Your task to perform on an android device: Search for Italian restaurants on Maps Image 0: 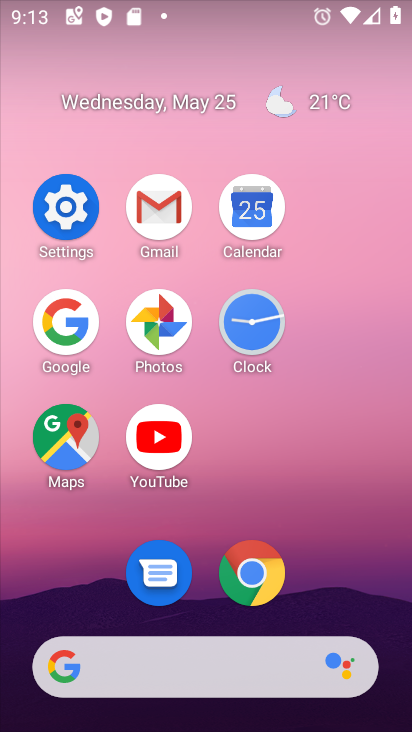
Step 0: click (87, 430)
Your task to perform on an android device: Search for Italian restaurants on Maps Image 1: 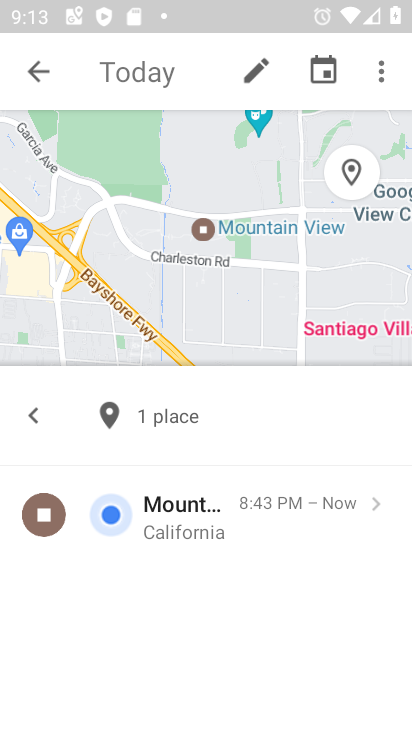
Step 1: click (47, 66)
Your task to perform on an android device: Search for Italian restaurants on Maps Image 2: 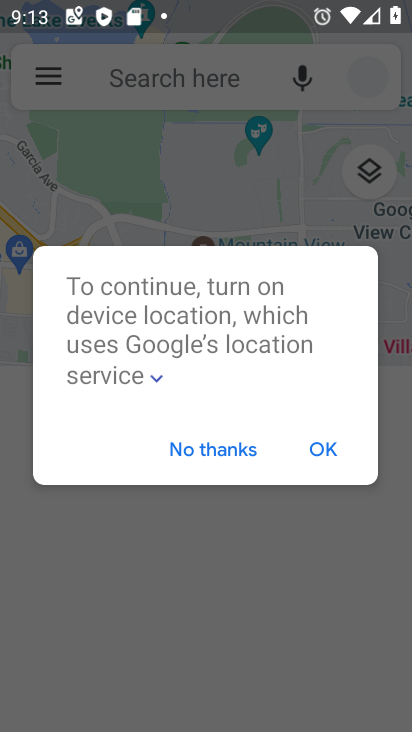
Step 2: click (298, 432)
Your task to perform on an android device: Search for Italian restaurants on Maps Image 3: 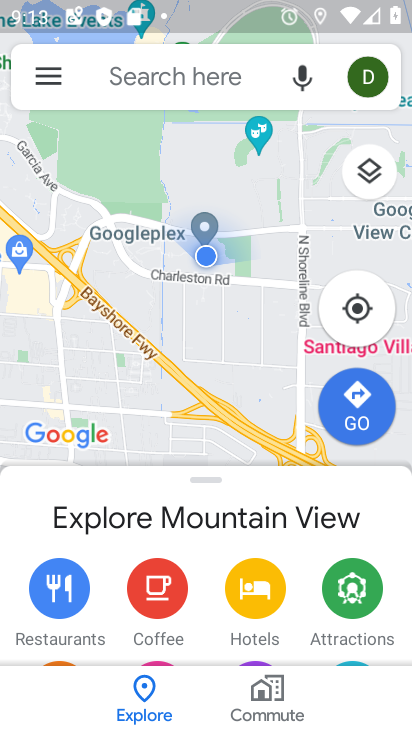
Step 3: click (141, 91)
Your task to perform on an android device: Search for Italian restaurants on Maps Image 4: 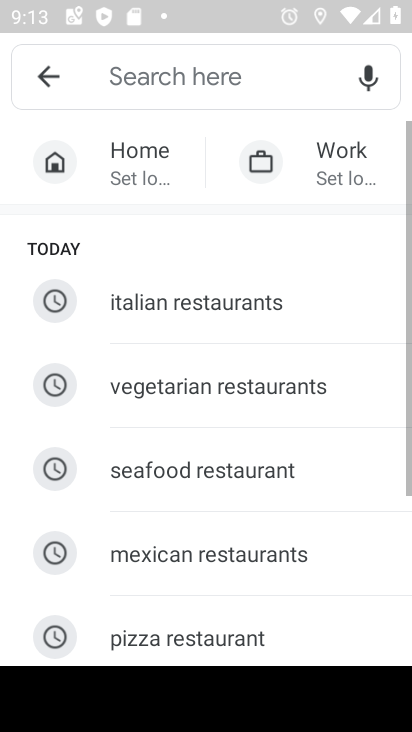
Step 4: click (213, 288)
Your task to perform on an android device: Search for Italian restaurants on Maps Image 5: 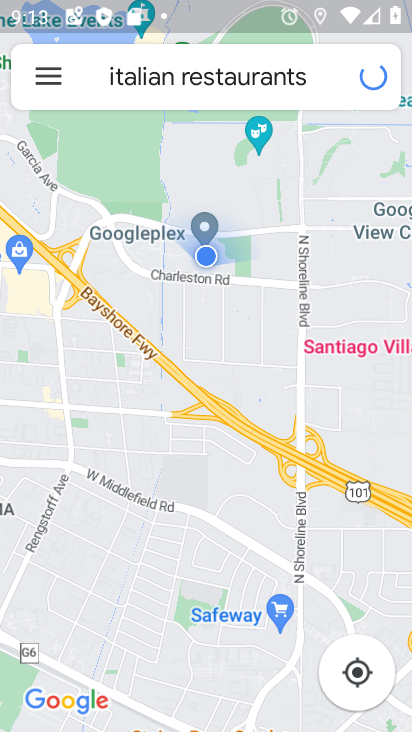
Step 5: task complete